Your task to perform on an android device: Open wifi settings Image 0: 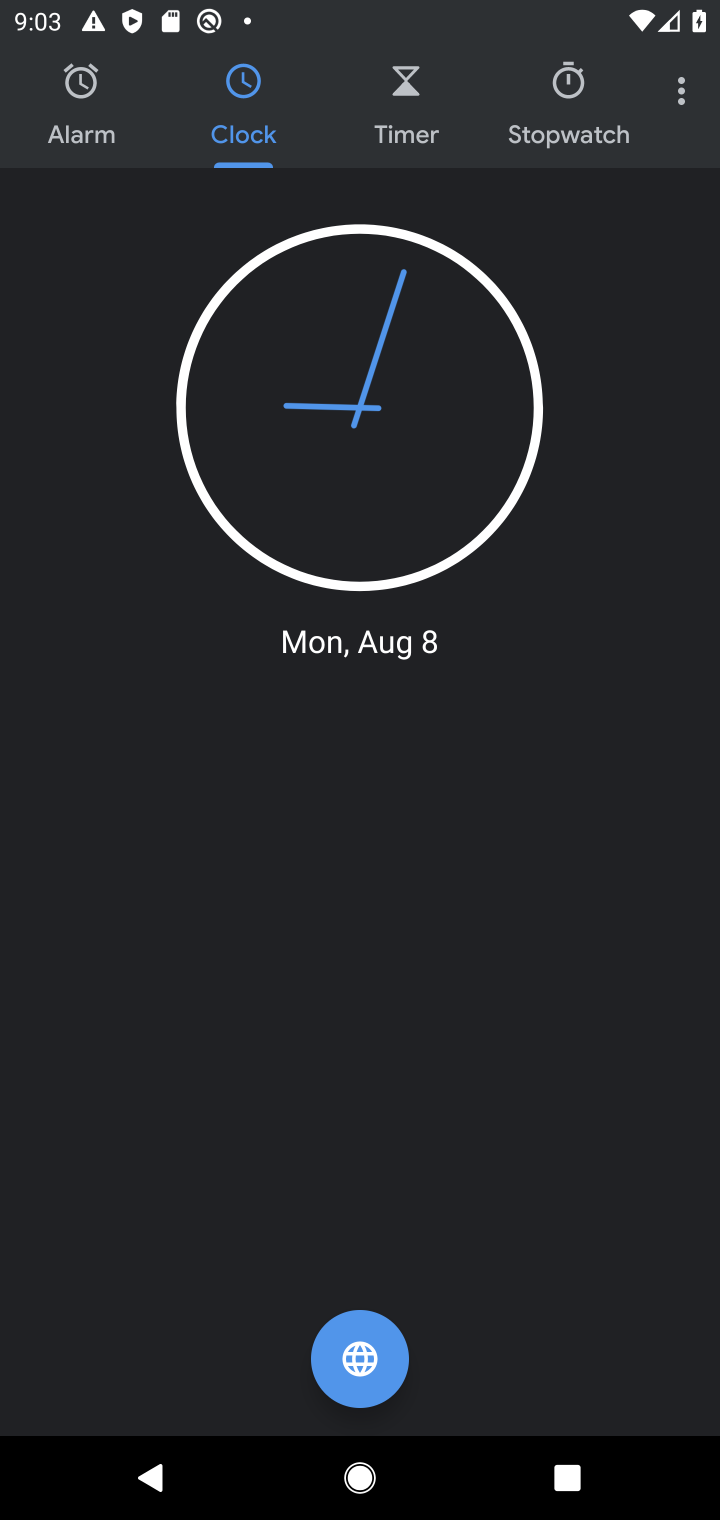
Step 0: press home button
Your task to perform on an android device: Open wifi settings Image 1: 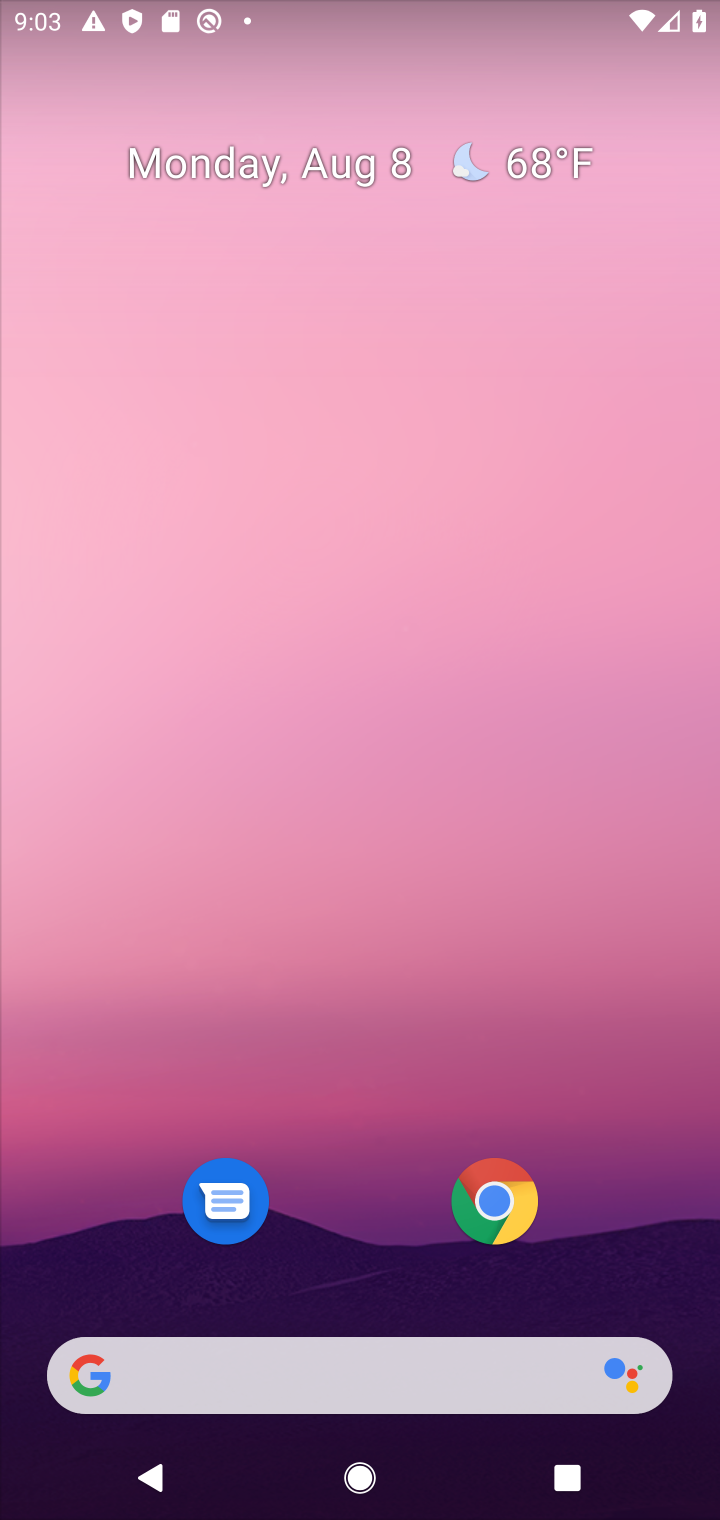
Step 1: drag from (588, 1197) to (608, 237)
Your task to perform on an android device: Open wifi settings Image 2: 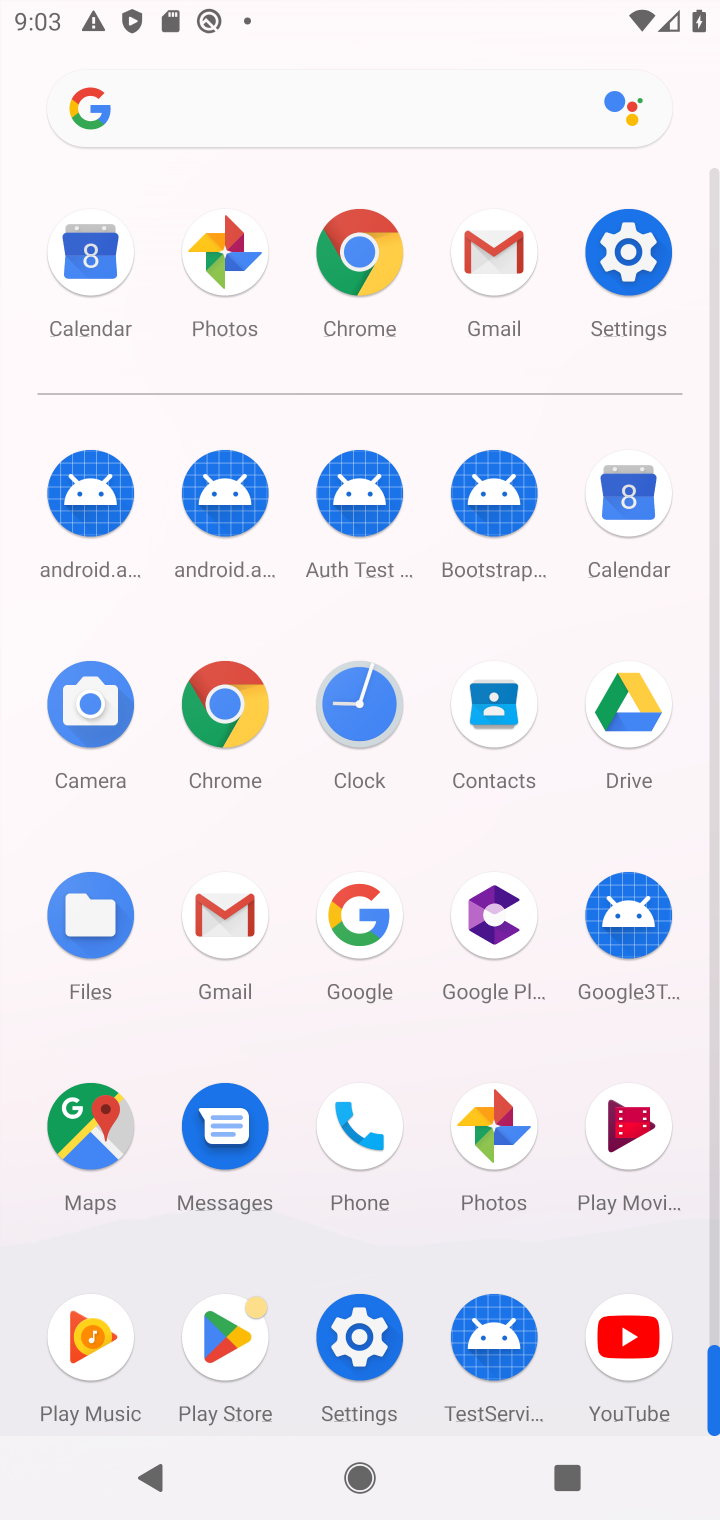
Step 2: click (638, 243)
Your task to perform on an android device: Open wifi settings Image 3: 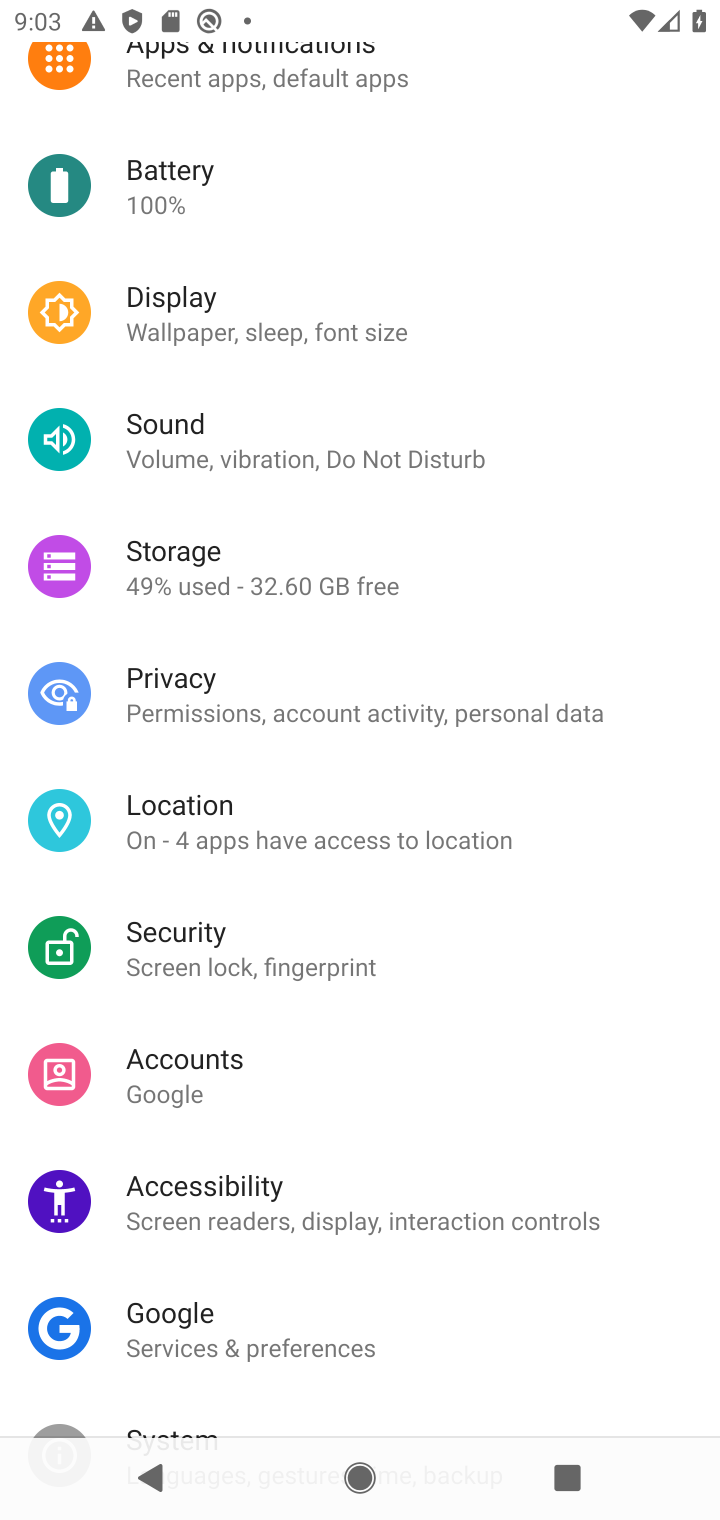
Step 3: drag from (640, 354) to (656, 640)
Your task to perform on an android device: Open wifi settings Image 4: 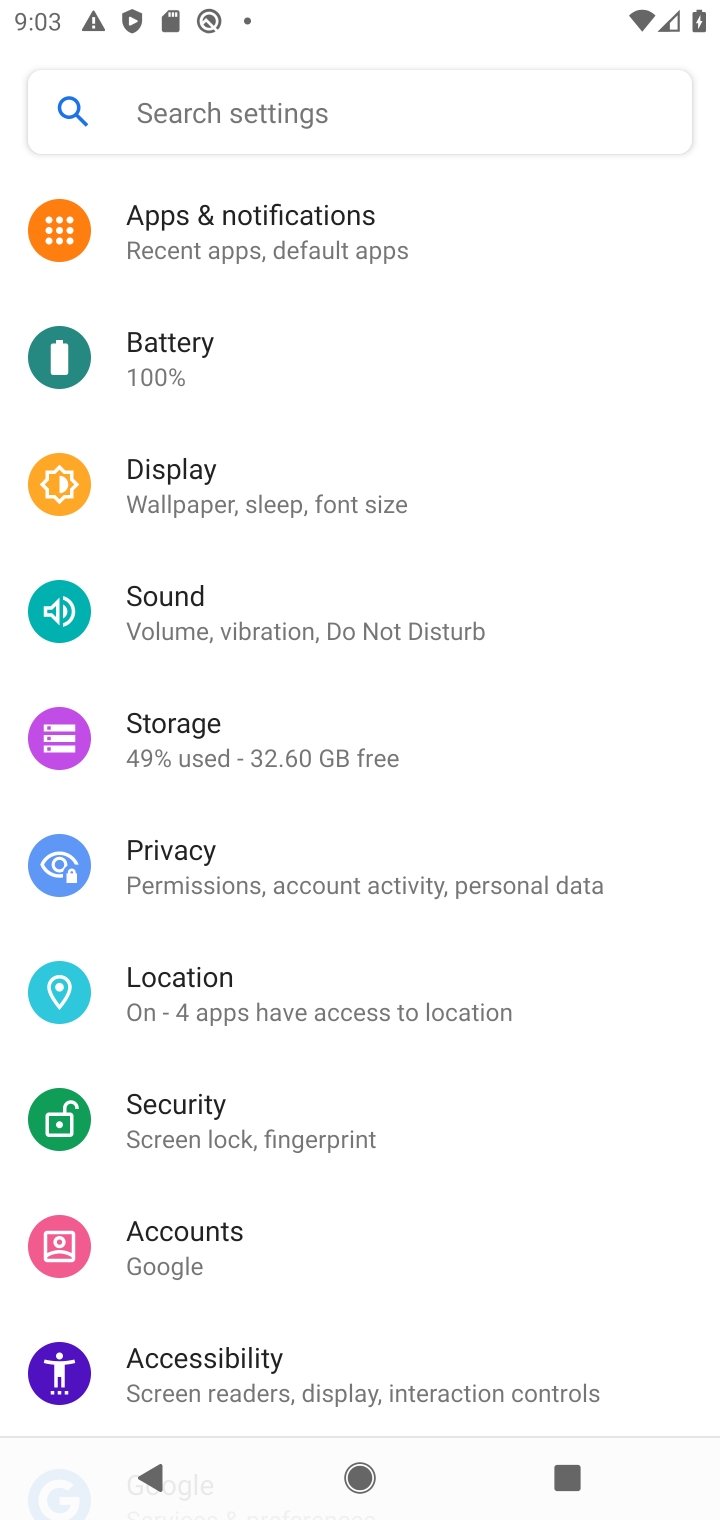
Step 4: drag from (632, 283) to (632, 660)
Your task to perform on an android device: Open wifi settings Image 5: 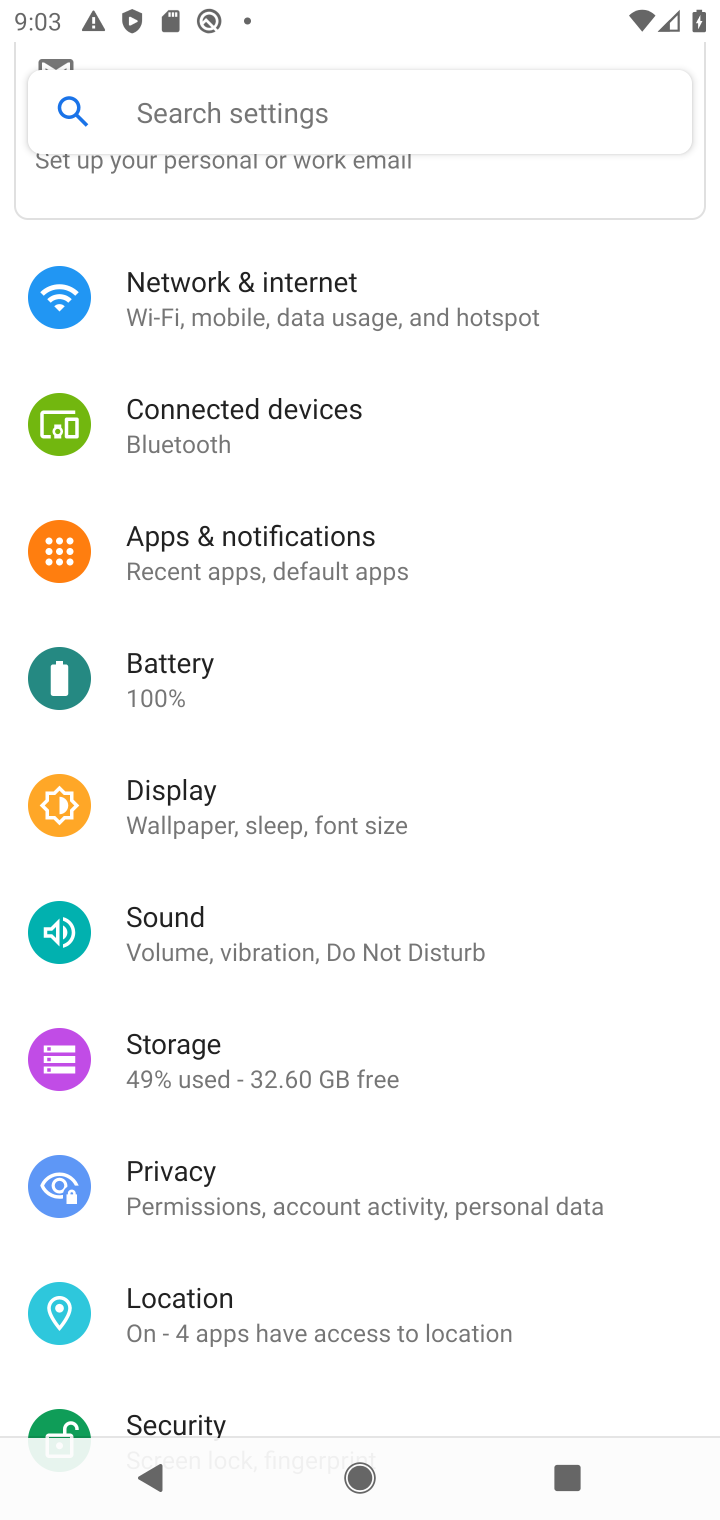
Step 5: drag from (629, 271) to (633, 632)
Your task to perform on an android device: Open wifi settings Image 6: 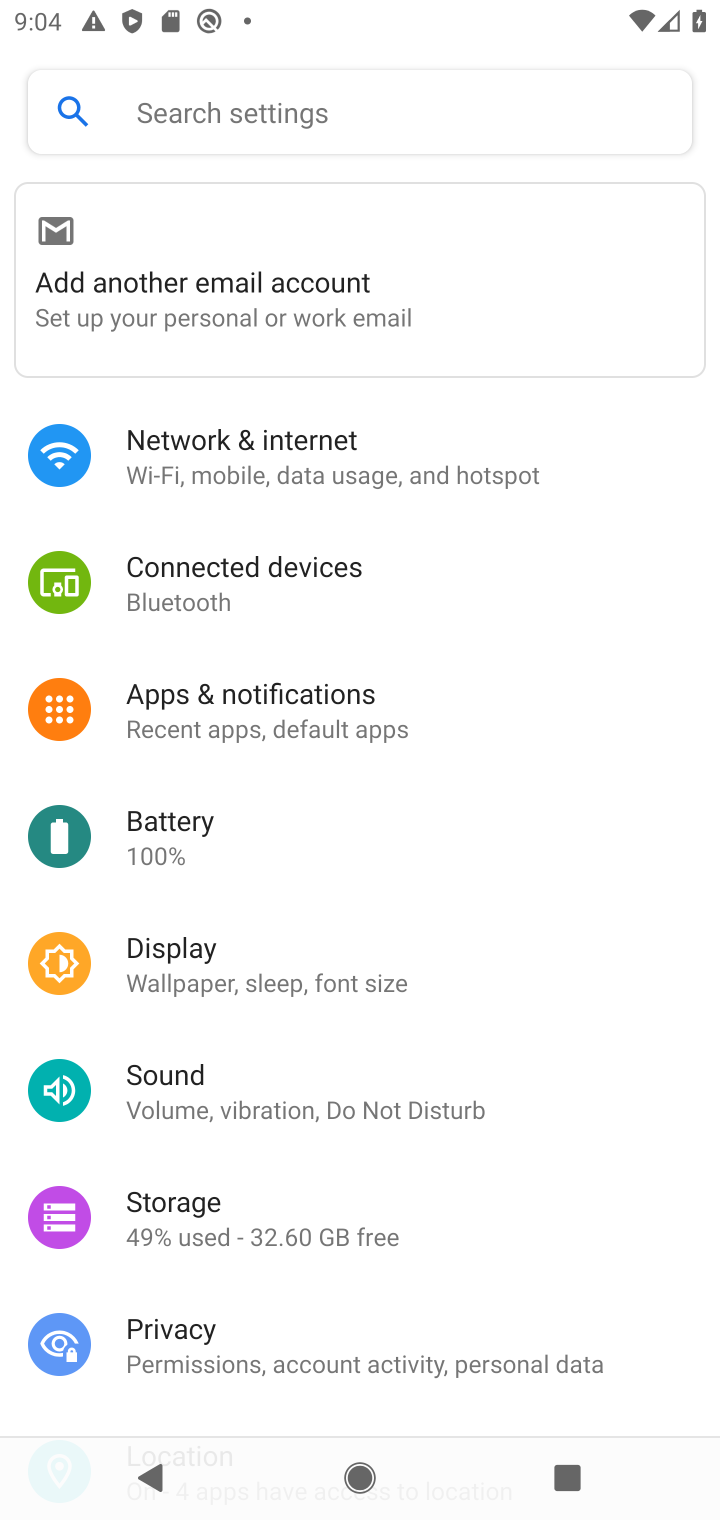
Step 6: drag from (645, 217) to (641, 669)
Your task to perform on an android device: Open wifi settings Image 7: 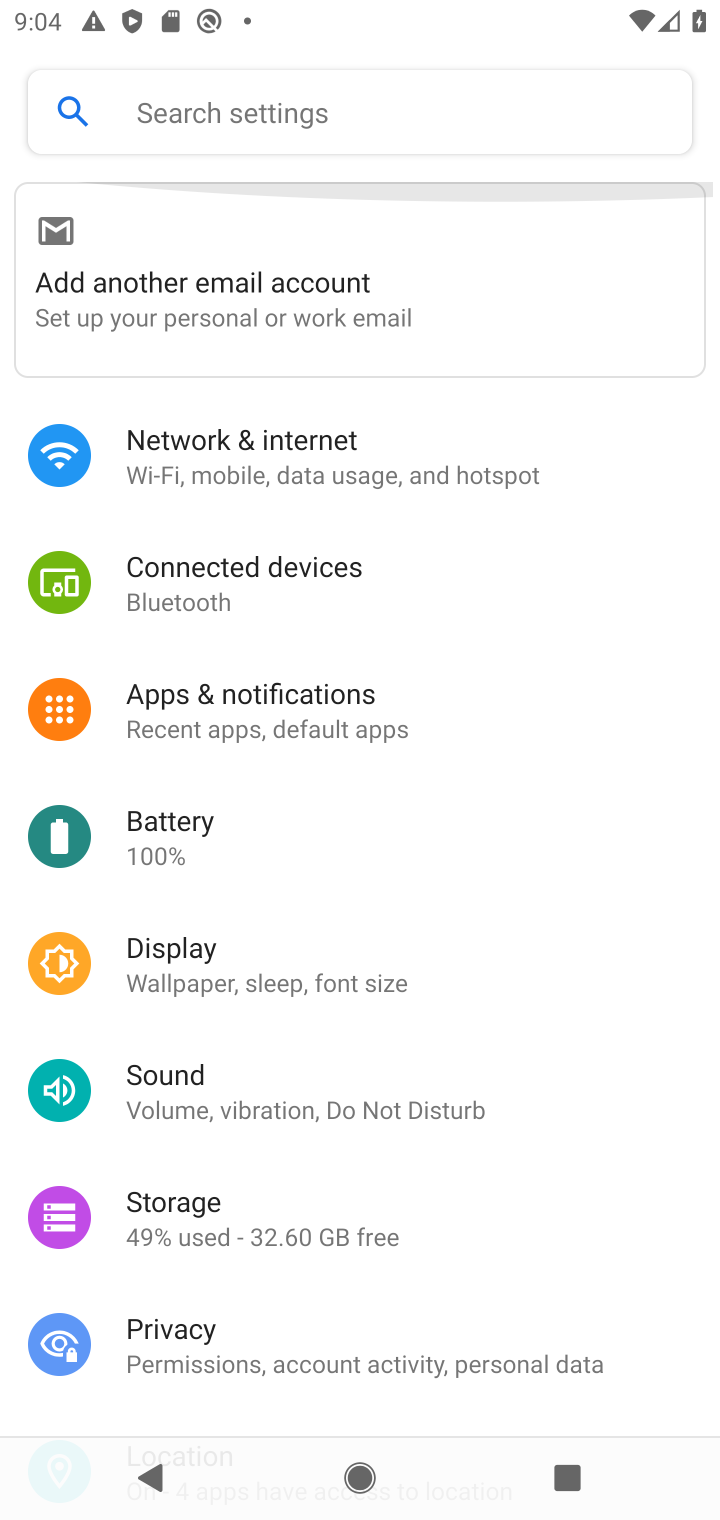
Step 7: click (496, 435)
Your task to perform on an android device: Open wifi settings Image 8: 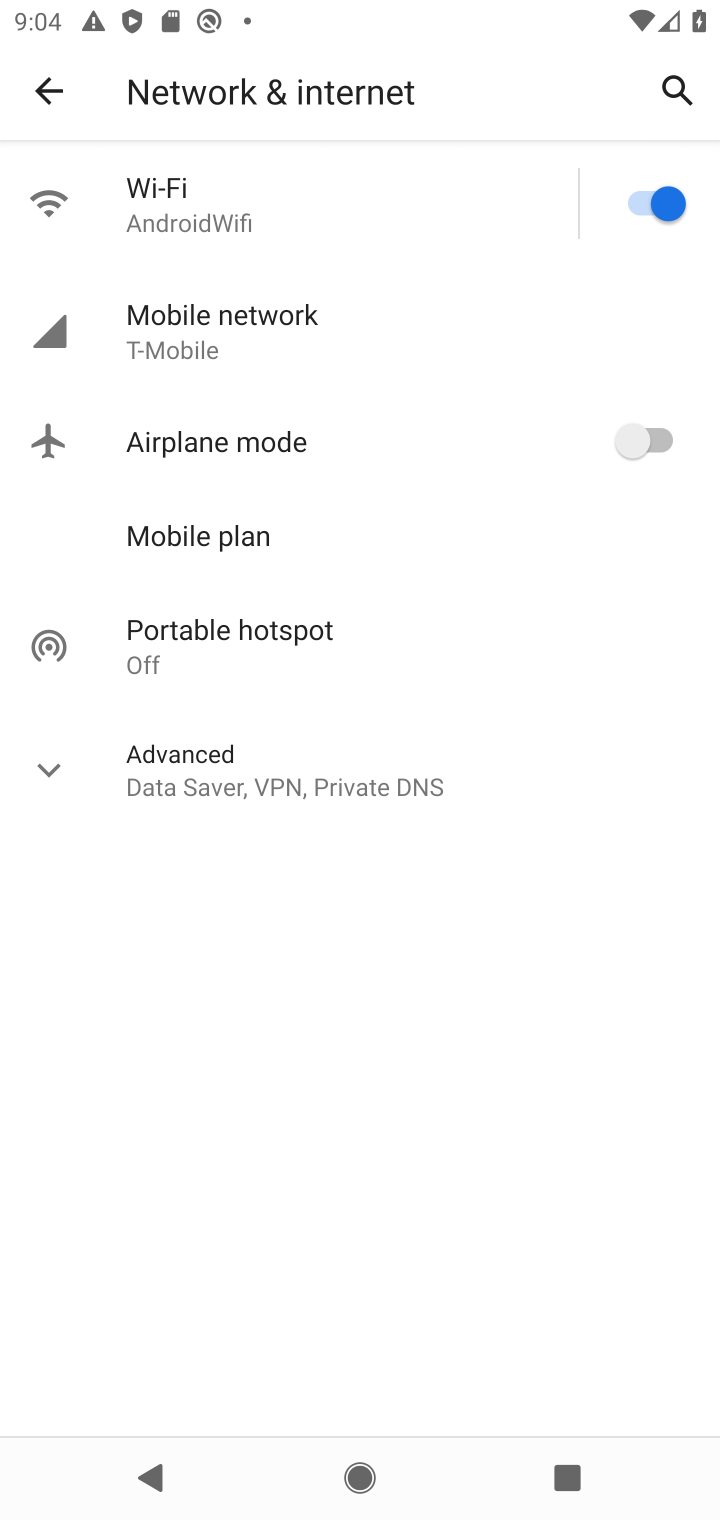
Step 8: click (181, 205)
Your task to perform on an android device: Open wifi settings Image 9: 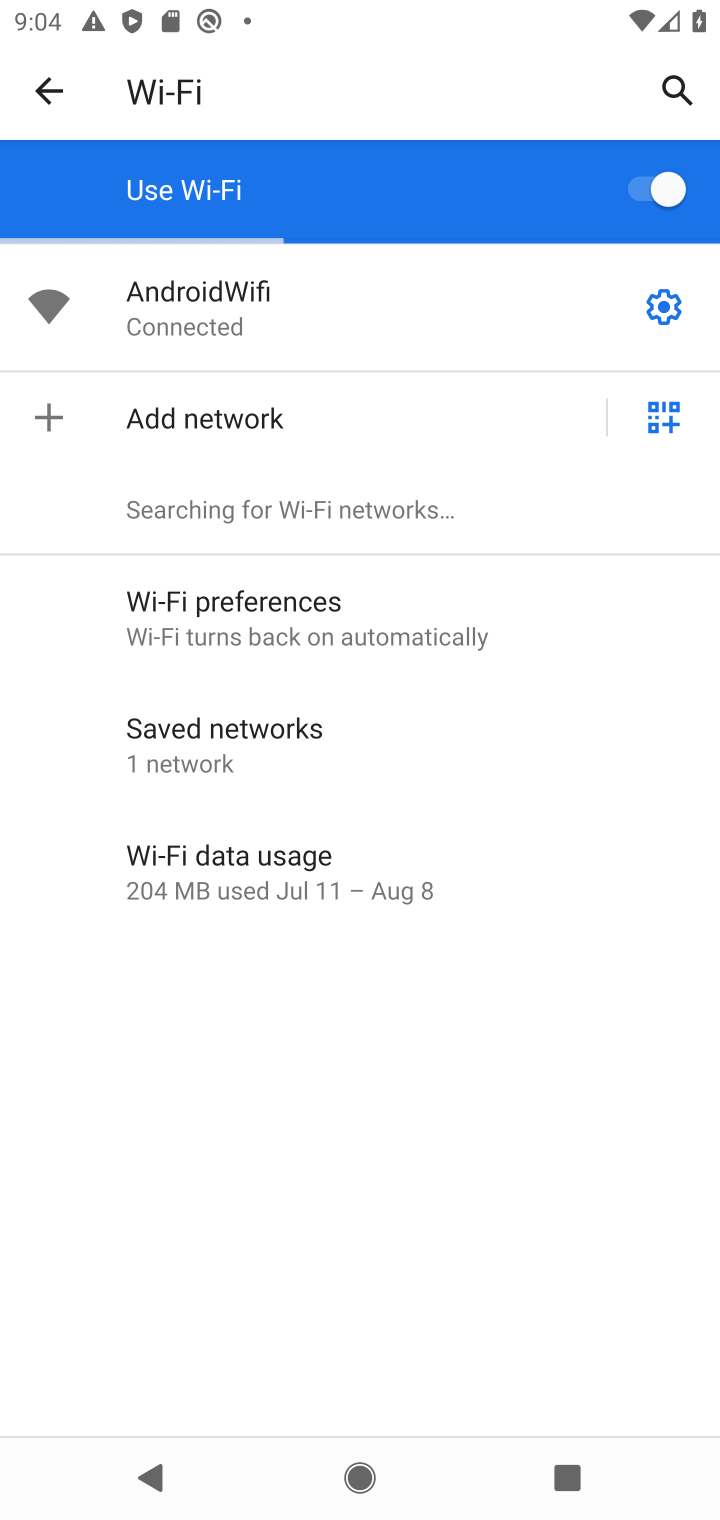
Step 9: task complete